Your task to perform on an android device: Check the news Image 0: 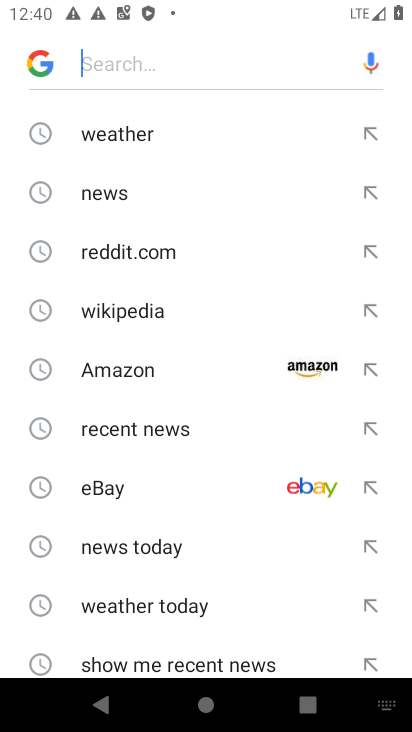
Step 0: press home button
Your task to perform on an android device: Check the news Image 1: 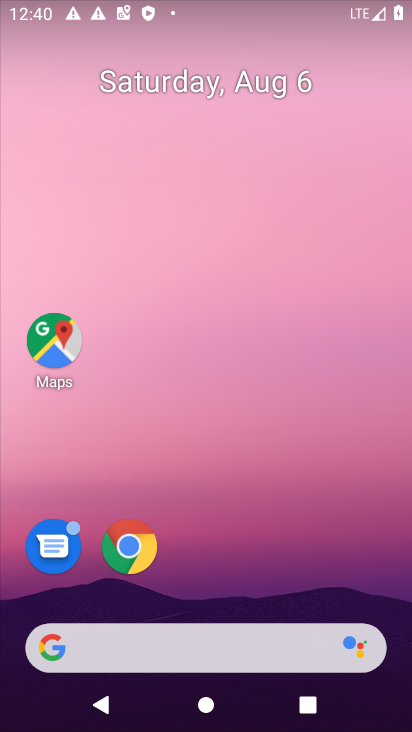
Step 1: task complete